Your task to perform on an android device: Go to wifi settings Image 0: 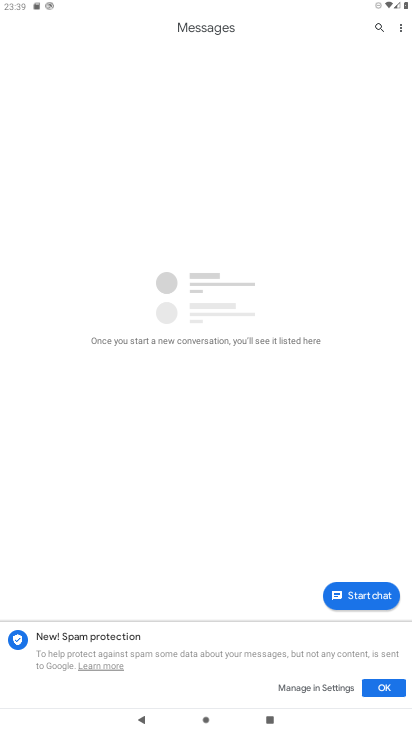
Step 0: press home button
Your task to perform on an android device: Go to wifi settings Image 1: 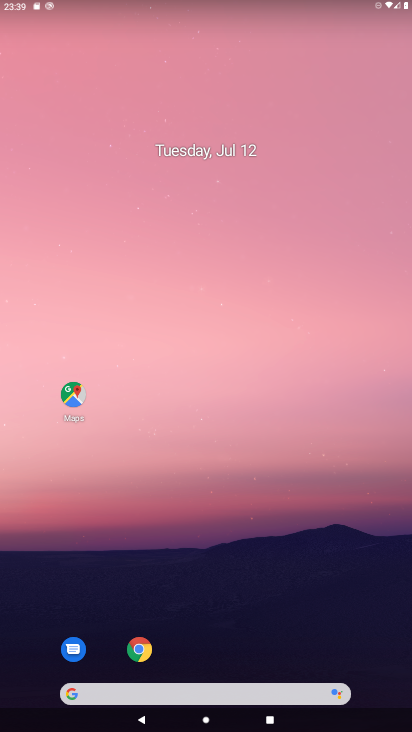
Step 1: drag from (381, 667) to (301, 28)
Your task to perform on an android device: Go to wifi settings Image 2: 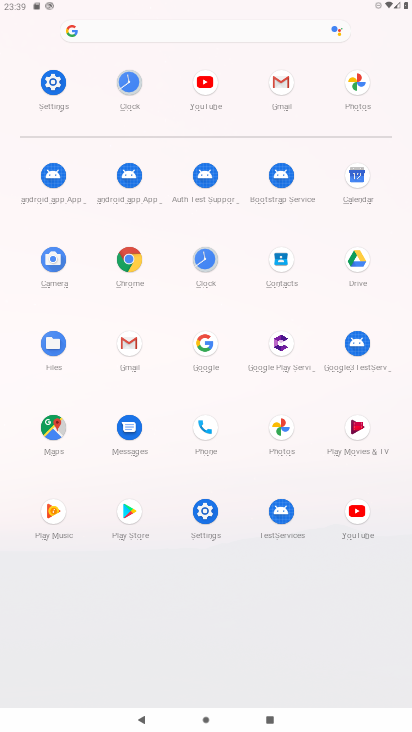
Step 2: click (200, 510)
Your task to perform on an android device: Go to wifi settings Image 3: 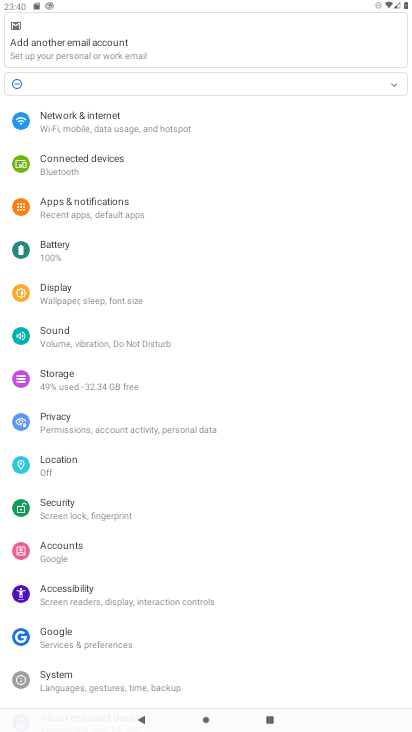
Step 3: click (81, 109)
Your task to perform on an android device: Go to wifi settings Image 4: 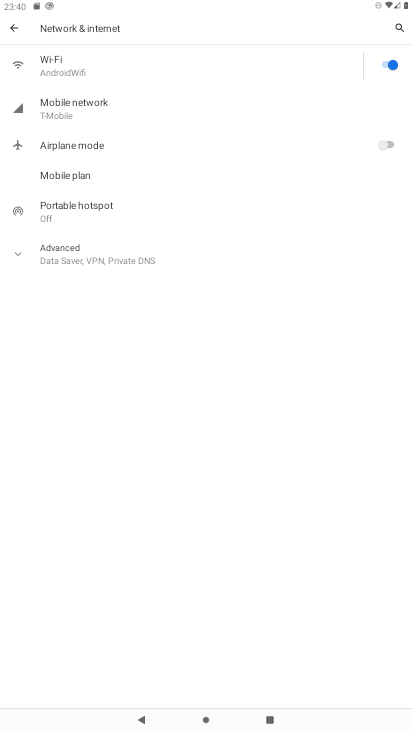
Step 4: click (62, 59)
Your task to perform on an android device: Go to wifi settings Image 5: 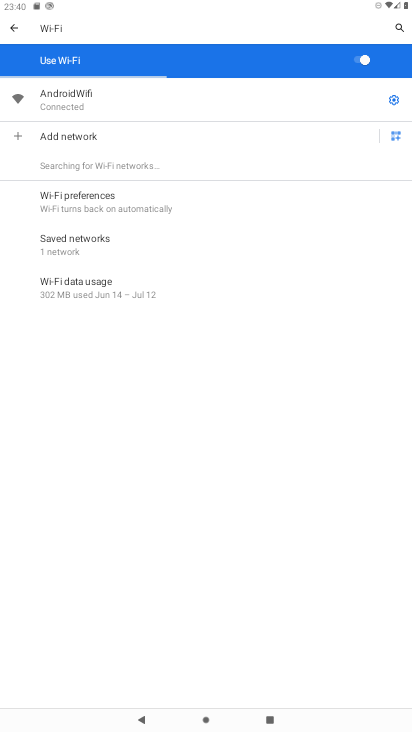
Step 5: task complete